Your task to perform on an android device: move a message to another label in the gmail app Image 0: 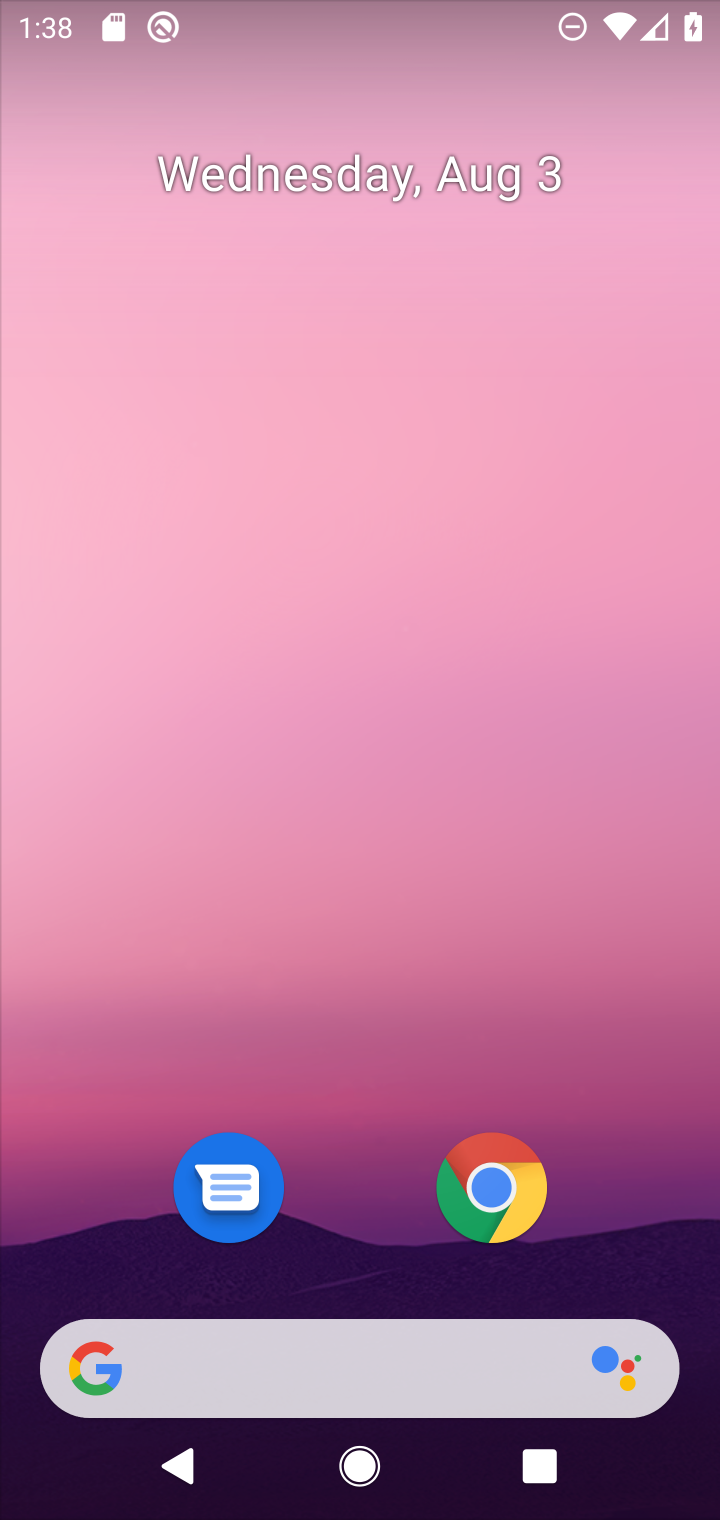
Step 0: drag from (332, 939) to (324, 99)
Your task to perform on an android device: move a message to another label in the gmail app Image 1: 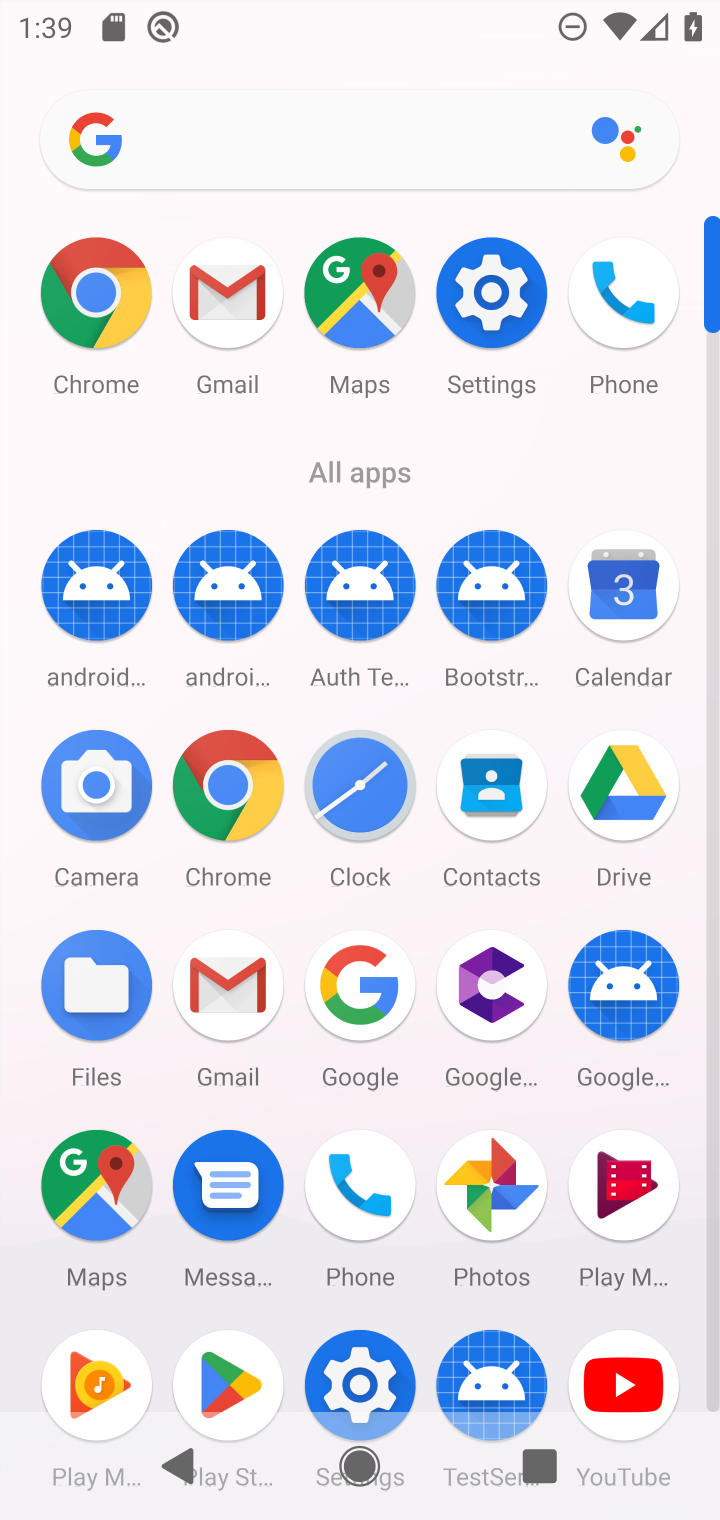
Step 1: click (238, 301)
Your task to perform on an android device: move a message to another label in the gmail app Image 2: 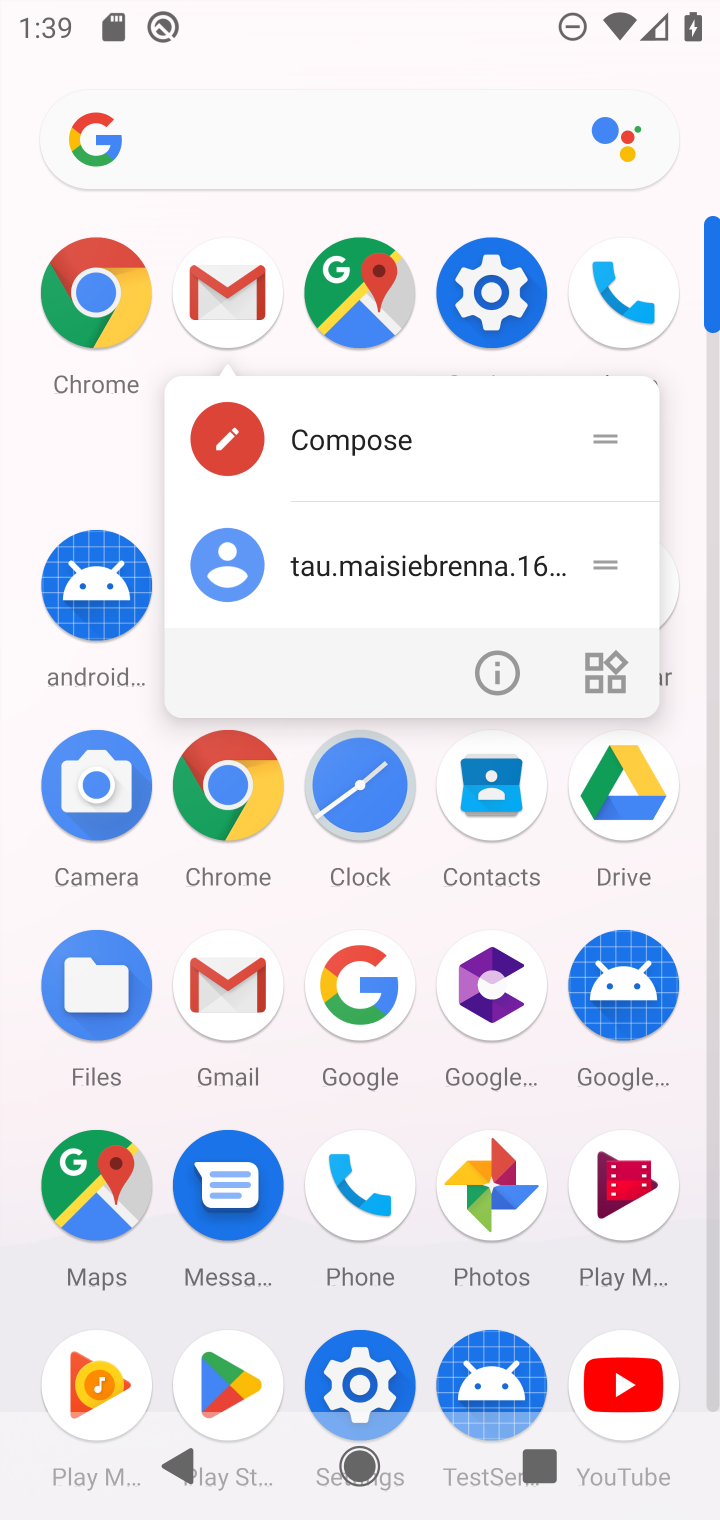
Step 2: click (238, 304)
Your task to perform on an android device: move a message to another label in the gmail app Image 3: 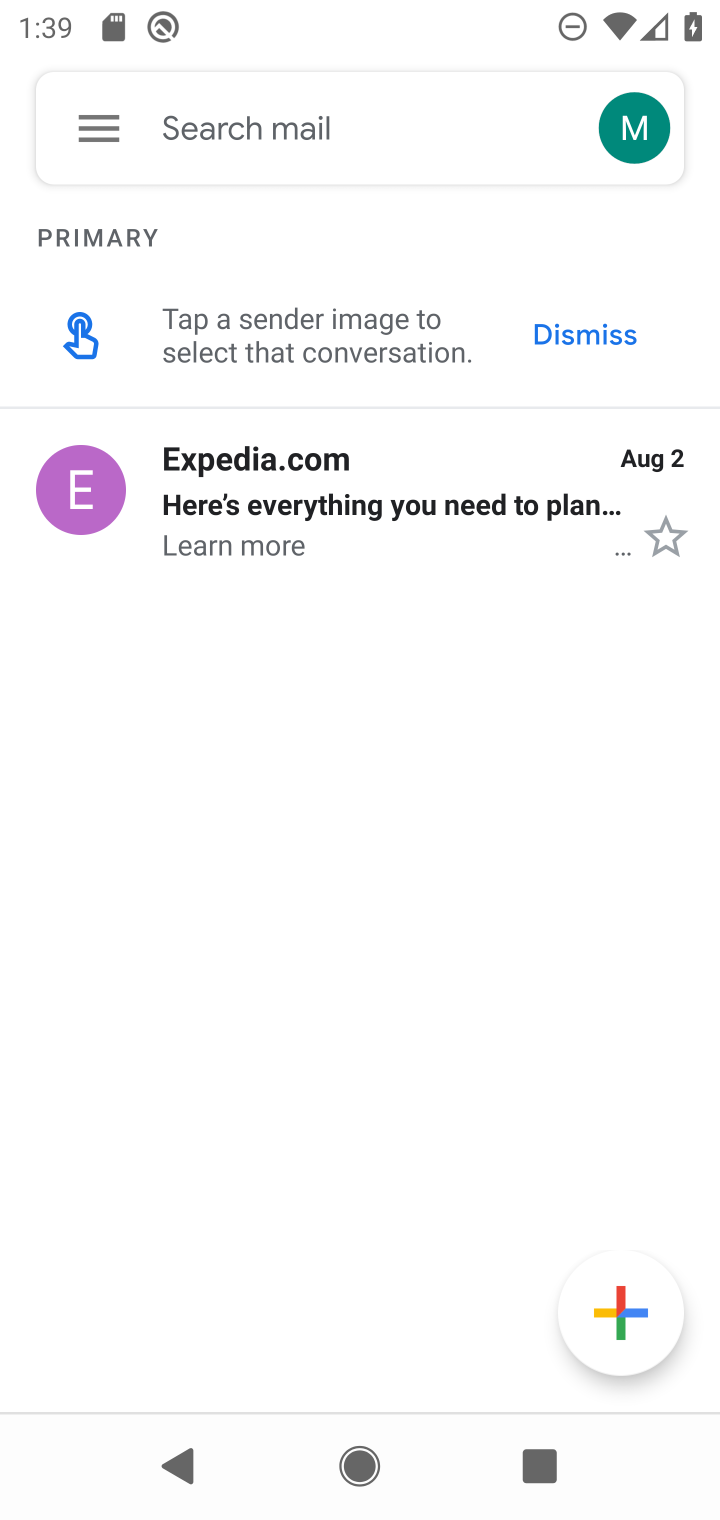
Step 3: click (250, 502)
Your task to perform on an android device: move a message to another label in the gmail app Image 4: 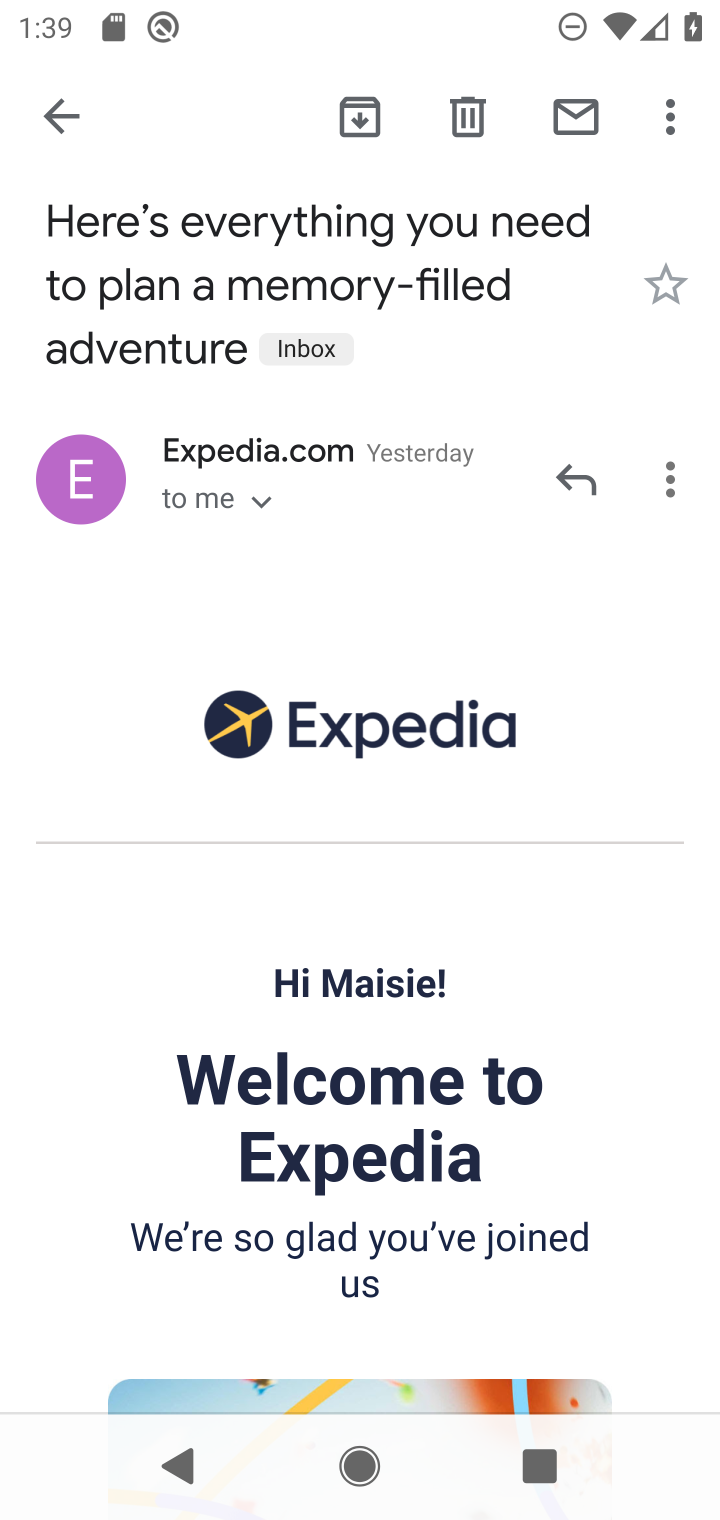
Step 4: click (669, 119)
Your task to perform on an android device: move a message to another label in the gmail app Image 5: 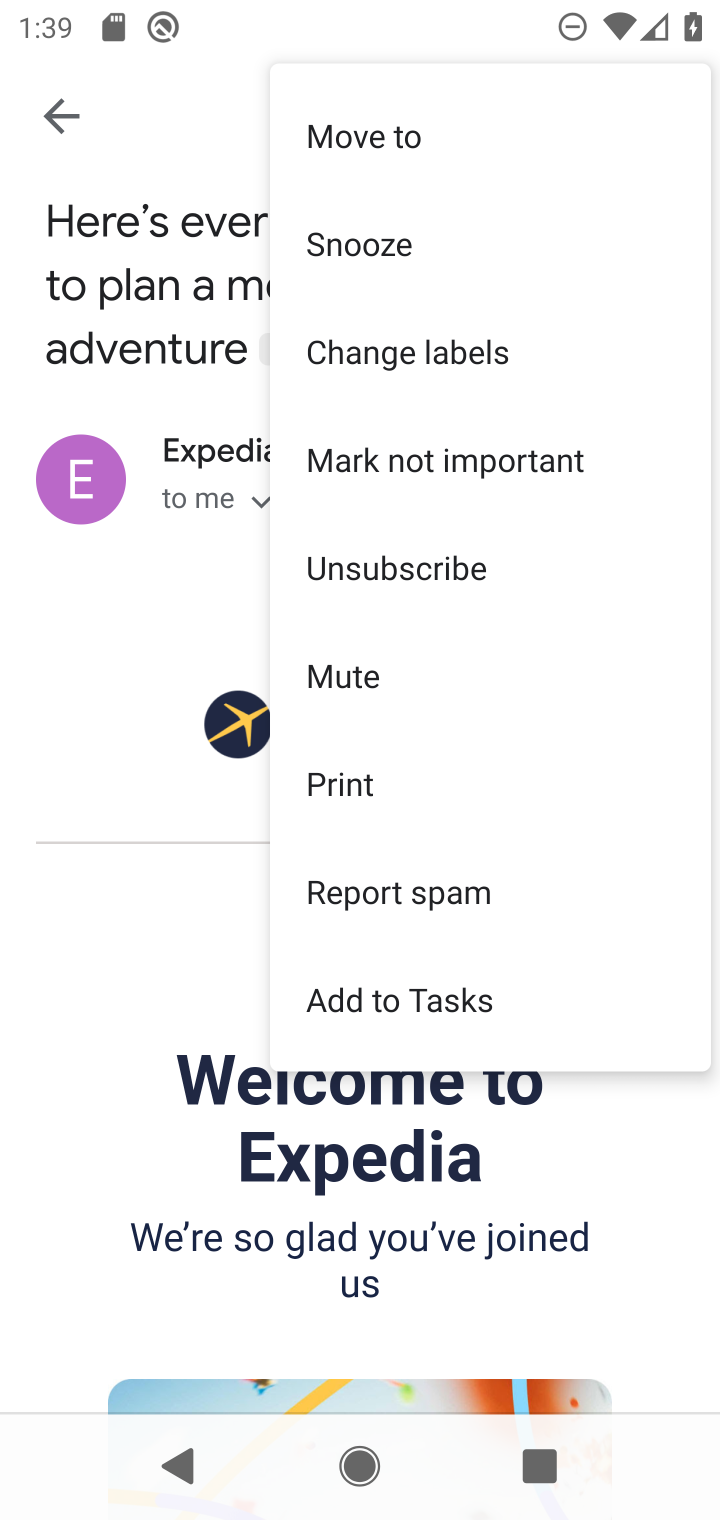
Step 5: click (513, 145)
Your task to perform on an android device: move a message to another label in the gmail app Image 6: 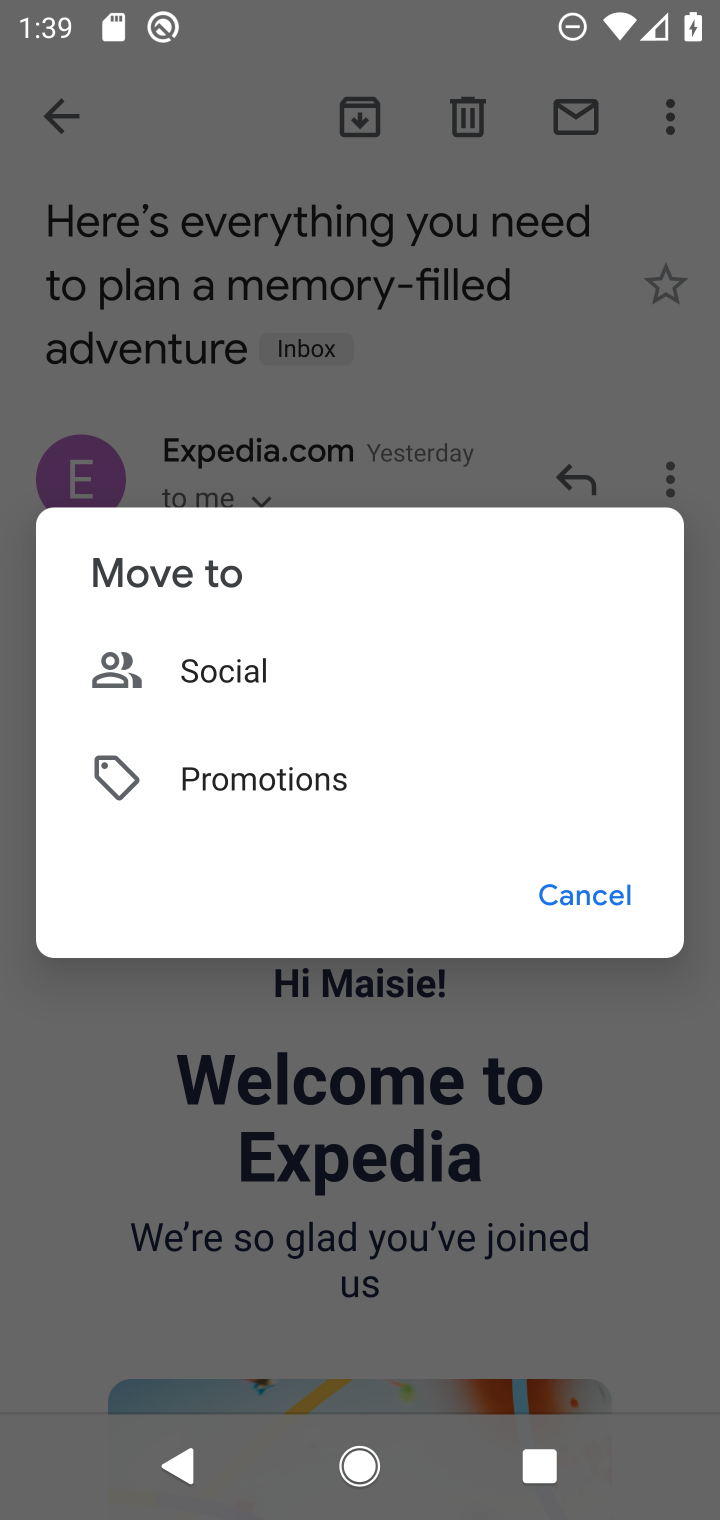
Step 6: click (272, 663)
Your task to perform on an android device: move a message to another label in the gmail app Image 7: 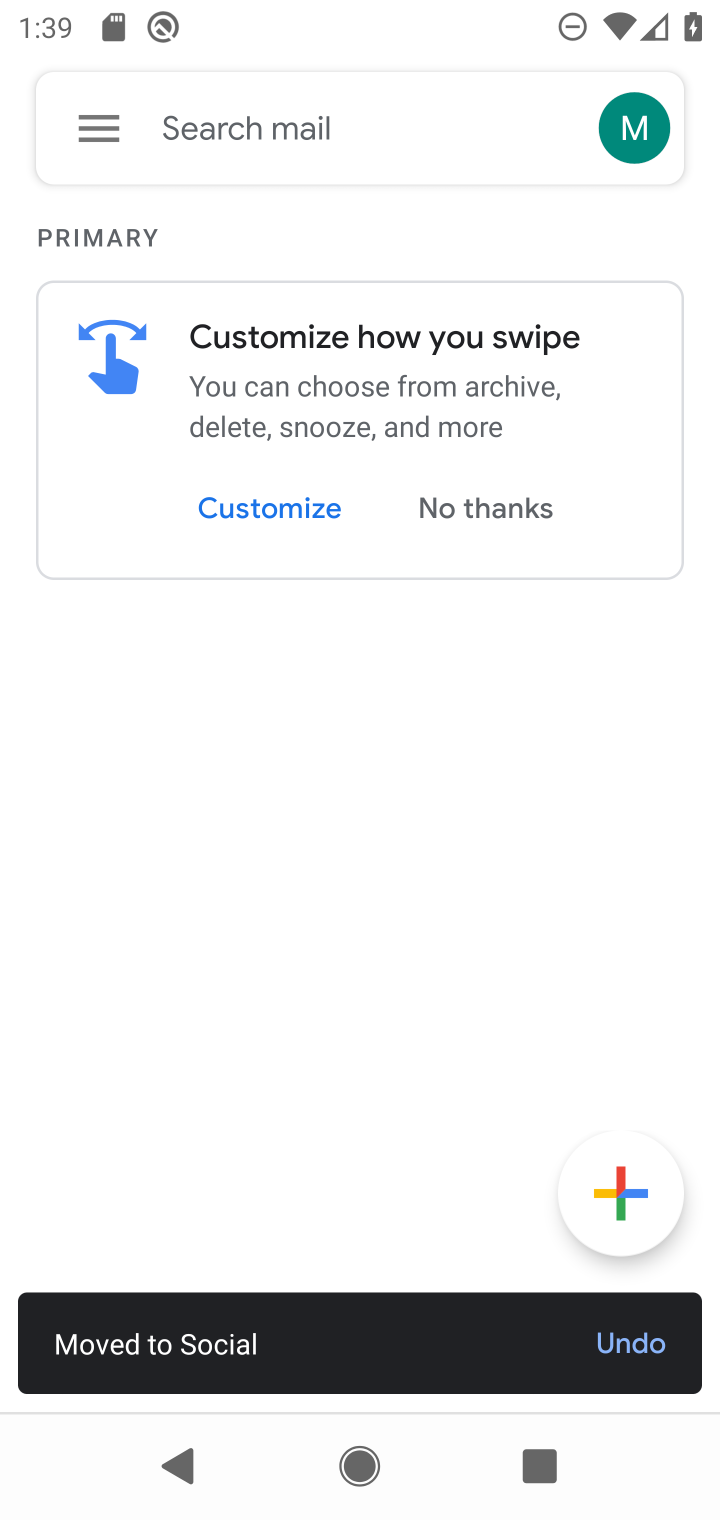
Step 7: task complete